Your task to perform on an android device: add a contact Image 0: 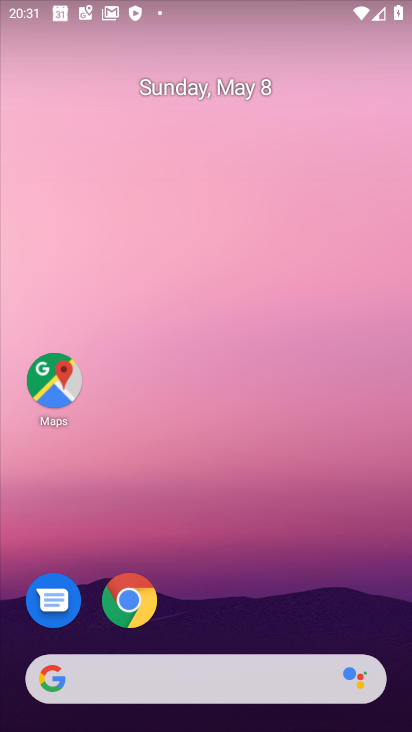
Step 0: drag from (239, 730) to (253, 175)
Your task to perform on an android device: add a contact Image 1: 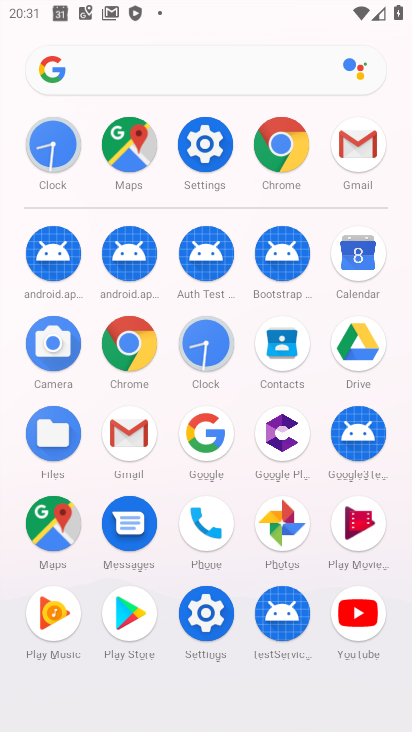
Step 1: click (221, 519)
Your task to perform on an android device: add a contact Image 2: 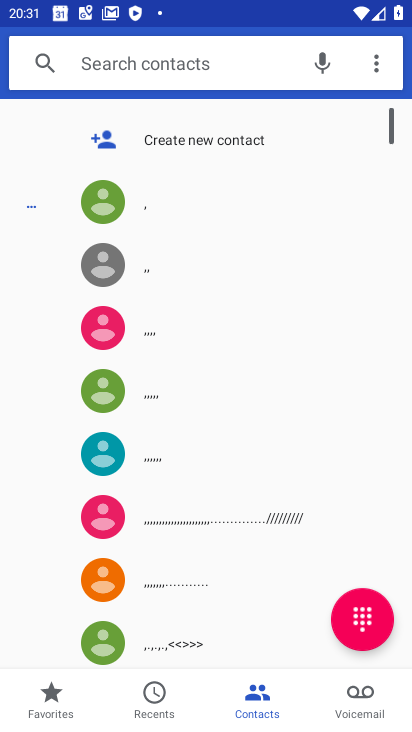
Step 2: click (161, 142)
Your task to perform on an android device: add a contact Image 3: 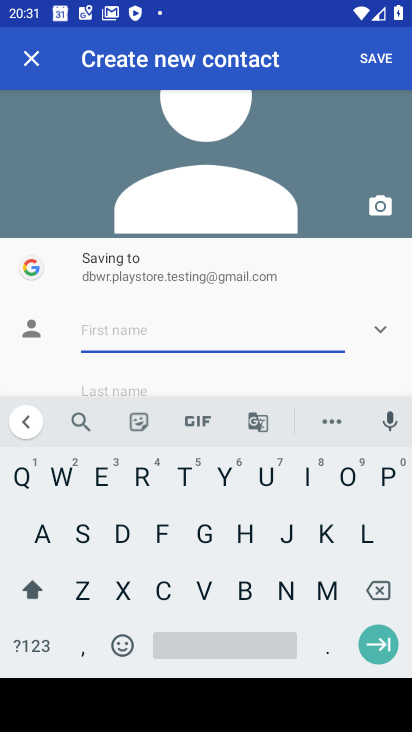
Step 3: click (185, 482)
Your task to perform on an android device: add a contact Image 4: 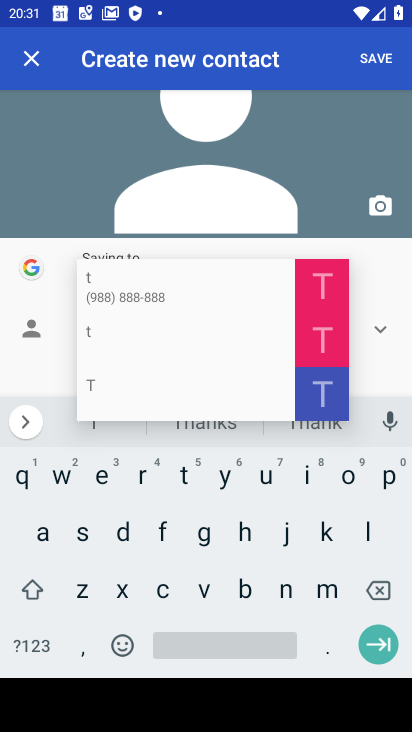
Step 4: click (143, 484)
Your task to perform on an android device: add a contact Image 5: 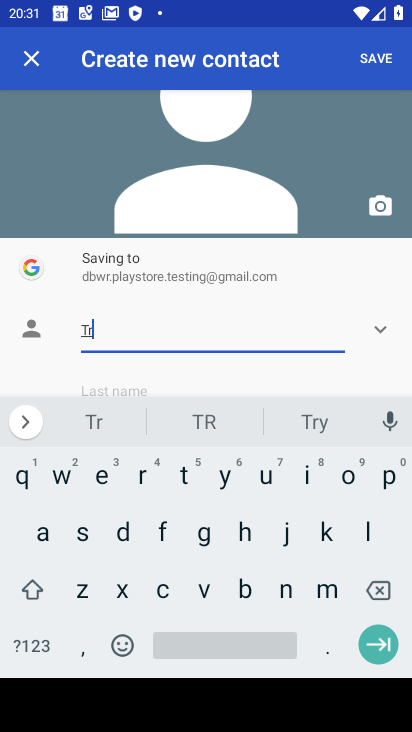
Step 5: click (182, 472)
Your task to perform on an android device: add a contact Image 6: 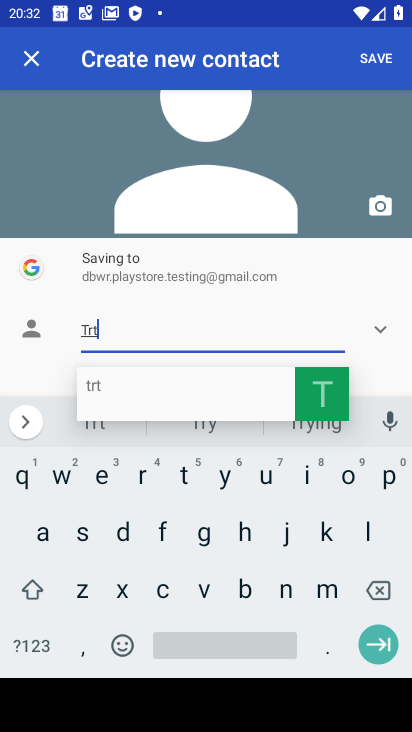
Step 6: click (195, 576)
Your task to perform on an android device: add a contact Image 7: 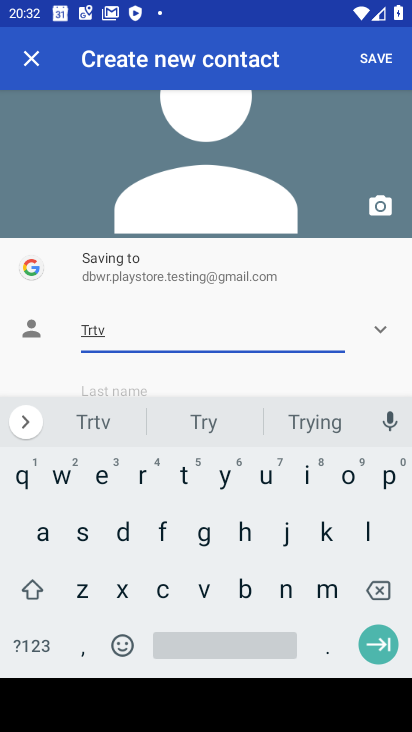
Step 7: drag from (281, 361) to (293, 253)
Your task to perform on an android device: add a contact Image 8: 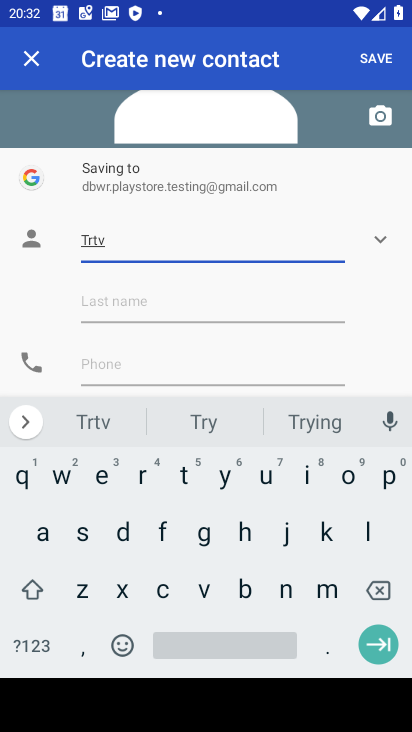
Step 8: click (101, 367)
Your task to perform on an android device: add a contact Image 9: 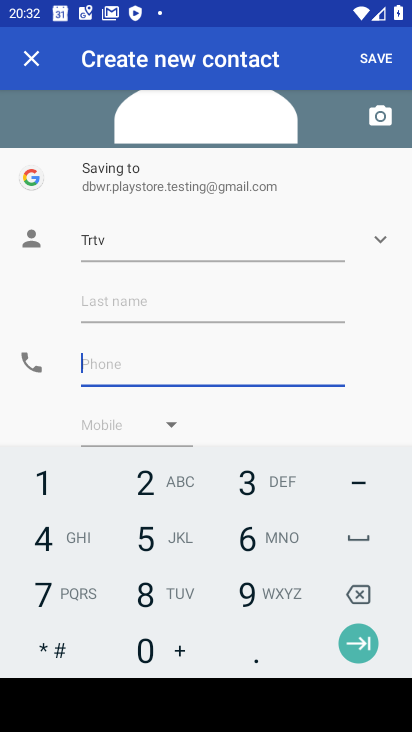
Step 9: click (61, 547)
Your task to perform on an android device: add a contact Image 10: 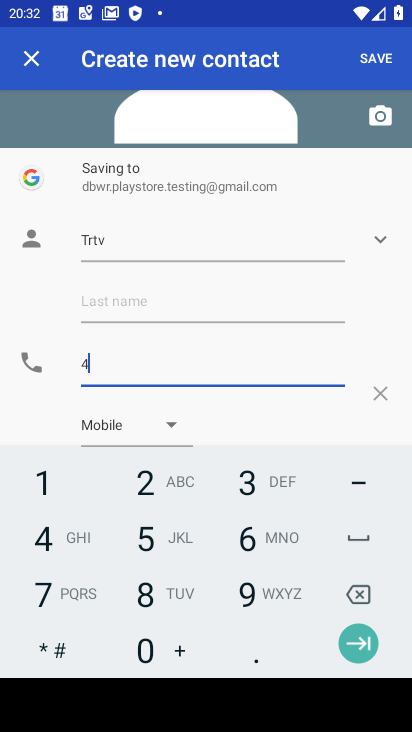
Step 10: click (158, 541)
Your task to perform on an android device: add a contact Image 11: 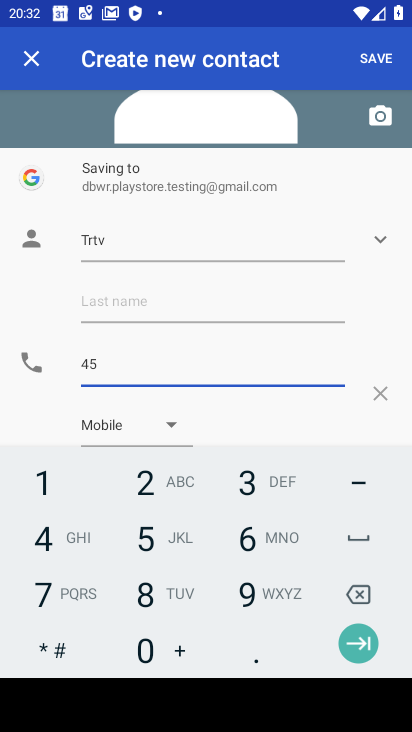
Step 11: click (154, 593)
Your task to perform on an android device: add a contact Image 12: 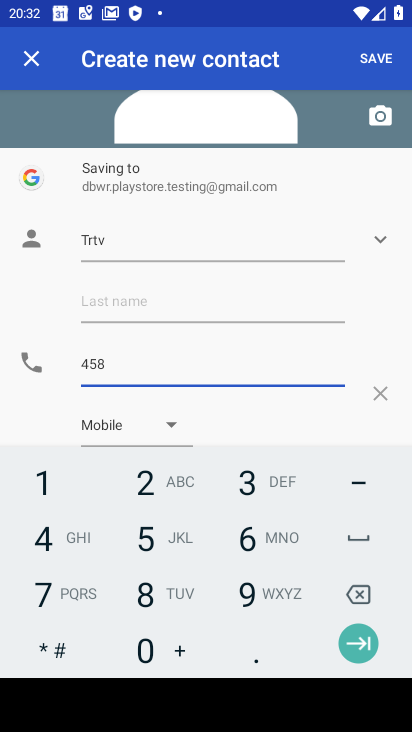
Step 12: click (253, 547)
Your task to perform on an android device: add a contact Image 13: 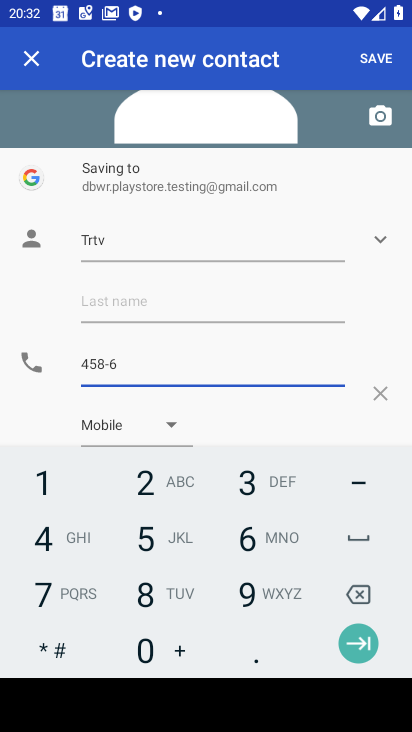
Step 13: click (157, 483)
Your task to perform on an android device: add a contact Image 14: 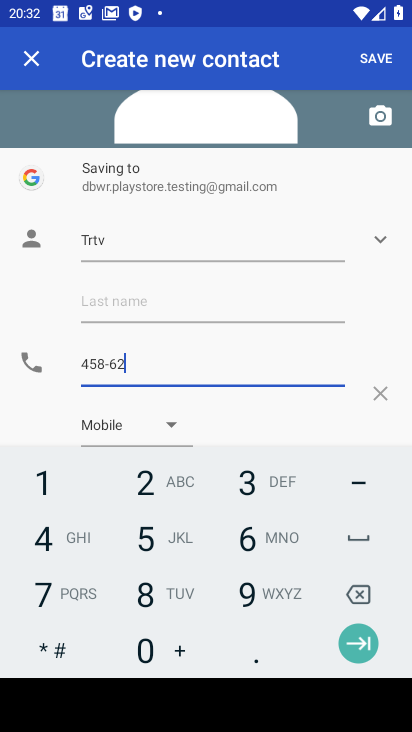
Step 14: click (132, 538)
Your task to perform on an android device: add a contact Image 15: 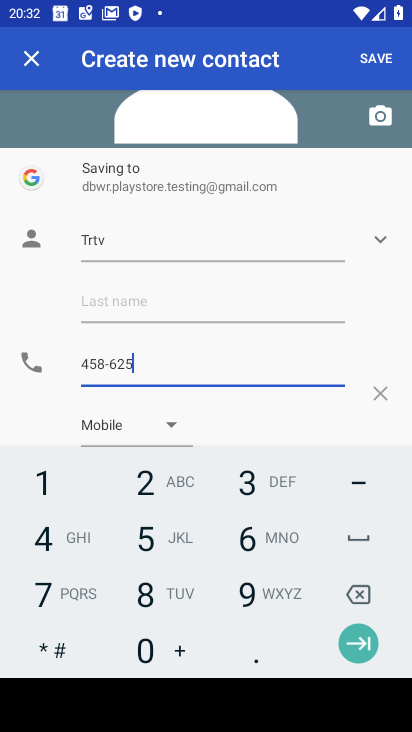
Step 15: click (154, 598)
Your task to perform on an android device: add a contact Image 16: 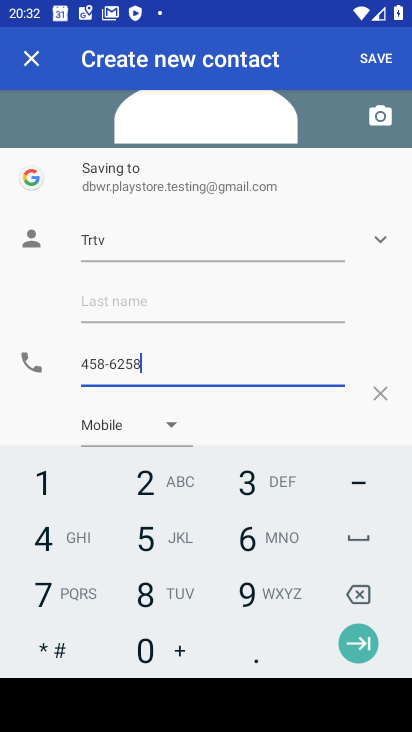
Step 16: click (250, 585)
Your task to perform on an android device: add a contact Image 17: 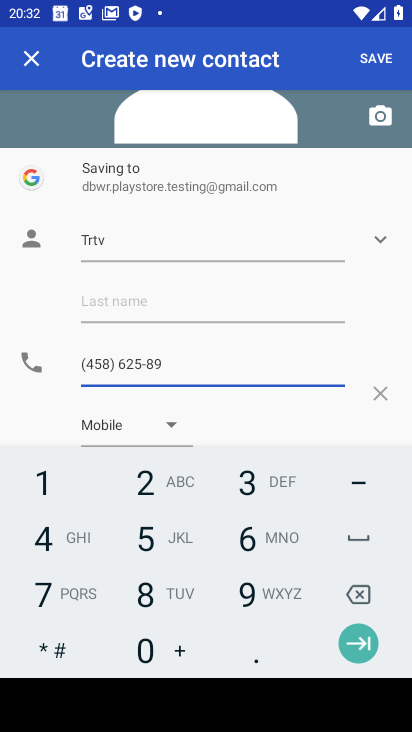
Step 17: click (375, 60)
Your task to perform on an android device: add a contact Image 18: 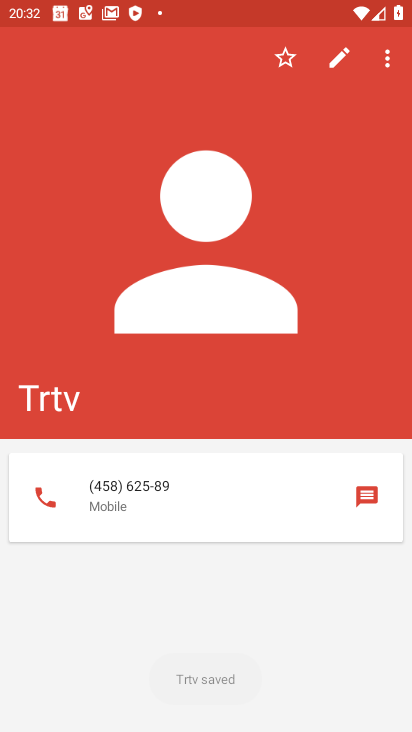
Step 18: task complete